Your task to perform on an android device: Search for Italian restaurants on Maps Image 0: 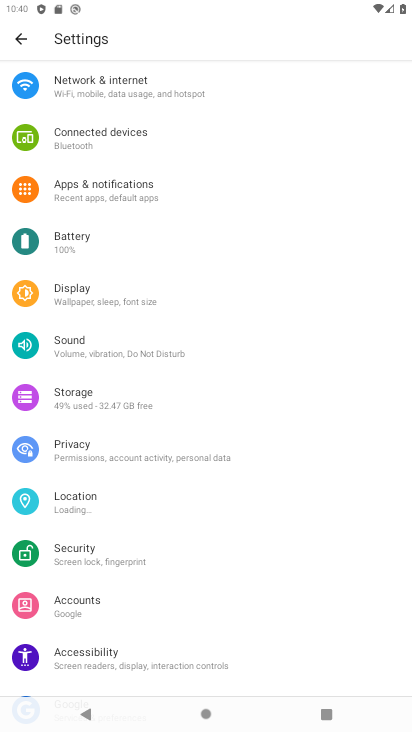
Step 0: press home button
Your task to perform on an android device: Search for Italian restaurants on Maps Image 1: 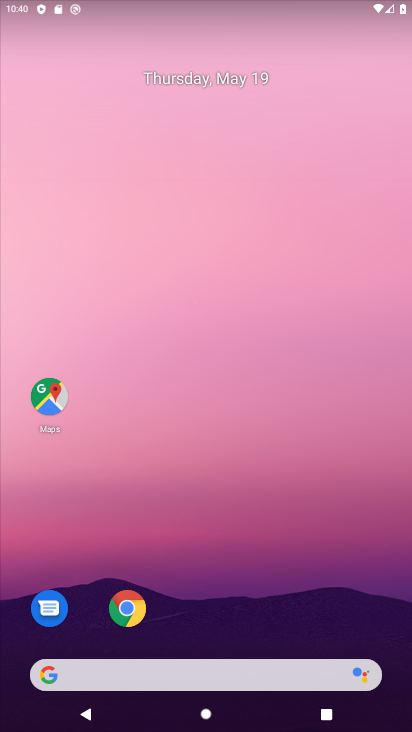
Step 1: click (54, 397)
Your task to perform on an android device: Search for Italian restaurants on Maps Image 2: 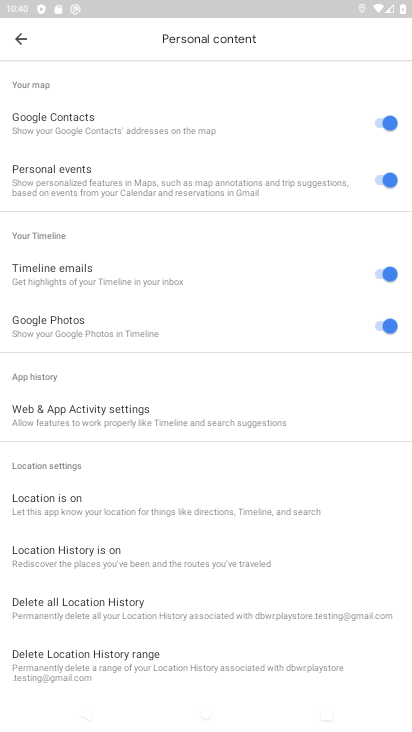
Step 2: press home button
Your task to perform on an android device: Search for Italian restaurants on Maps Image 3: 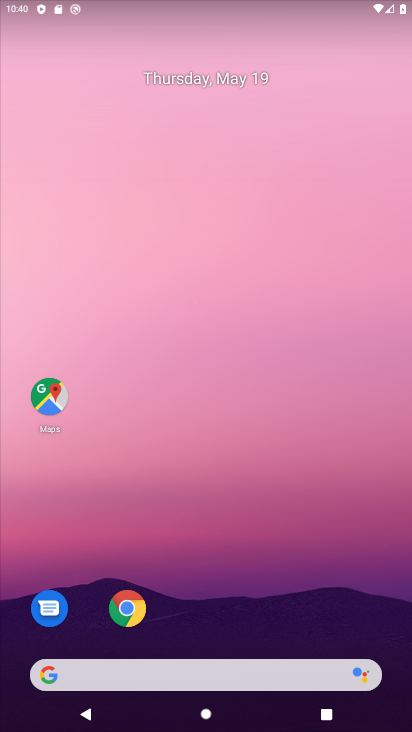
Step 3: click (123, 604)
Your task to perform on an android device: Search for Italian restaurants on Maps Image 4: 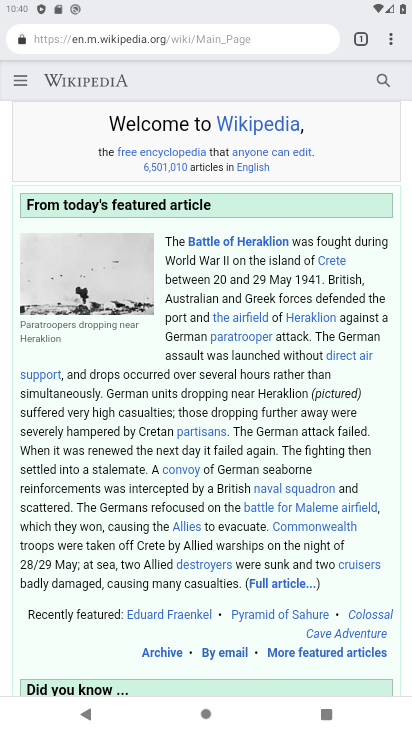
Step 4: press home button
Your task to perform on an android device: Search for Italian restaurants on Maps Image 5: 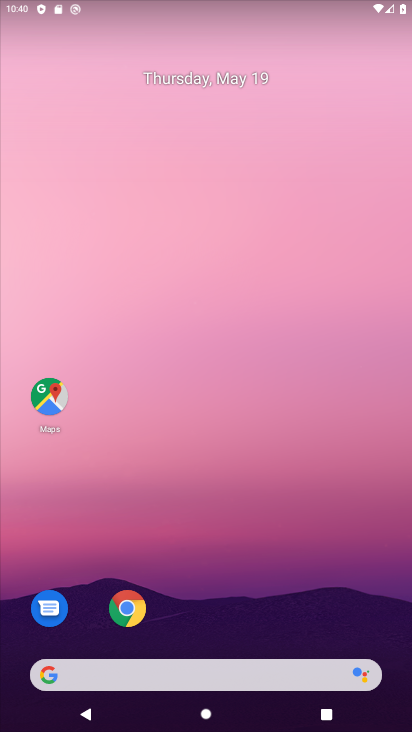
Step 5: click (44, 392)
Your task to perform on an android device: Search for Italian restaurants on Maps Image 6: 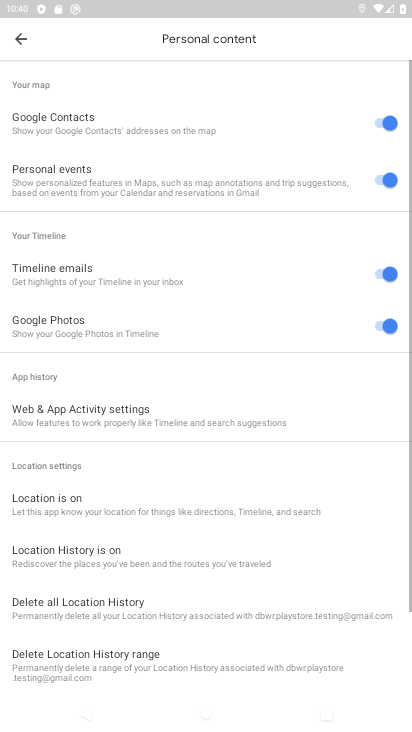
Step 6: click (16, 34)
Your task to perform on an android device: Search for Italian restaurants on Maps Image 7: 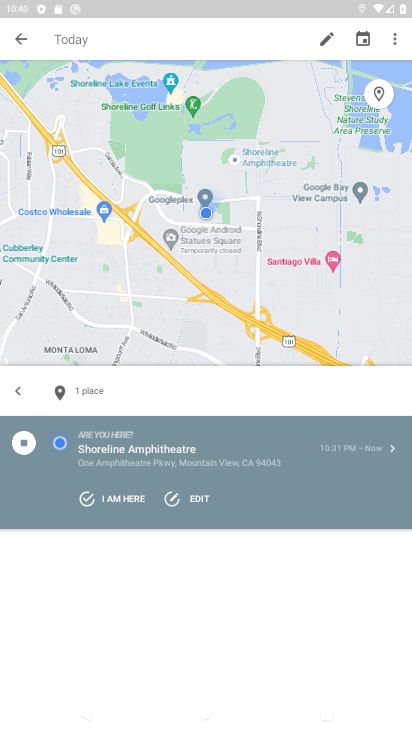
Step 7: click (92, 45)
Your task to perform on an android device: Search for Italian restaurants on Maps Image 8: 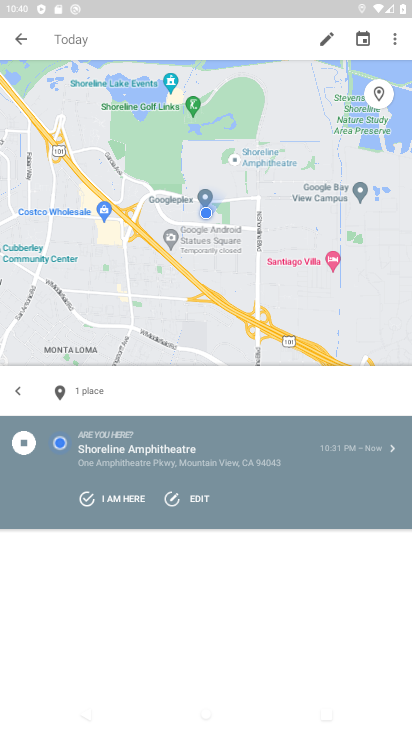
Step 8: click (16, 38)
Your task to perform on an android device: Search for Italian restaurants on Maps Image 9: 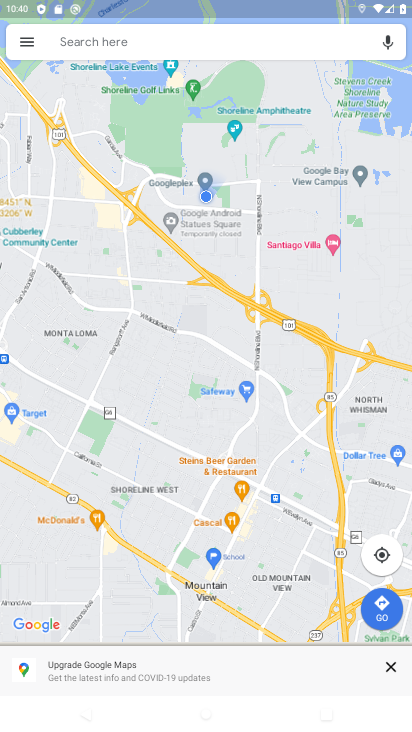
Step 9: click (78, 40)
Your task to perform on an android device: Search for Italian restaurants on Maps Image 10: 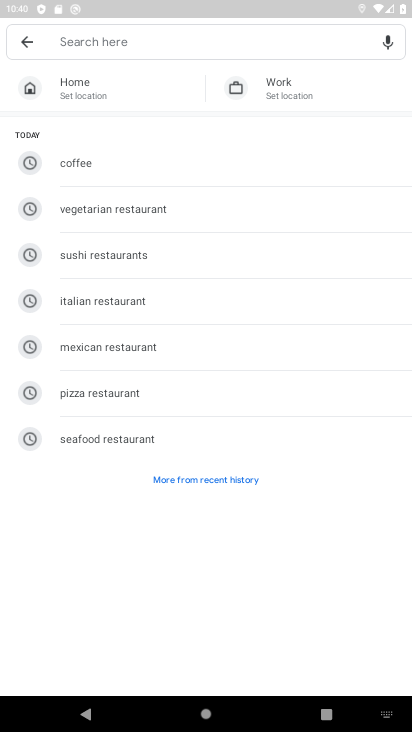
Step 10: type "talian restaurants "
Your task to perform on an android device: Search for Italian restaurants on Maps Image 11: 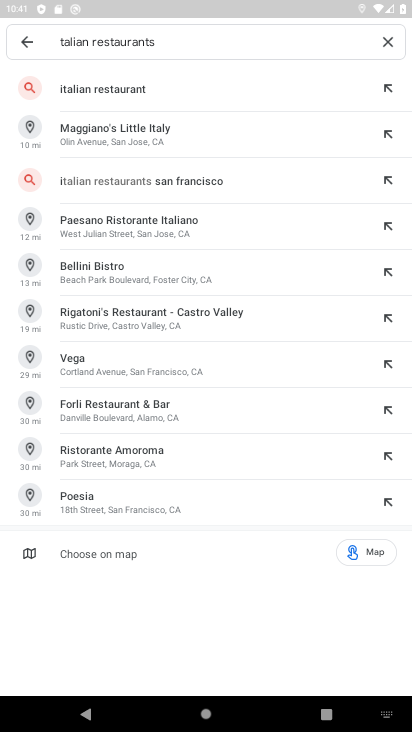
Step 11: click (136, 89)
Your task to perform on an android device: Search for Italian restaurants on Maps Image 12: 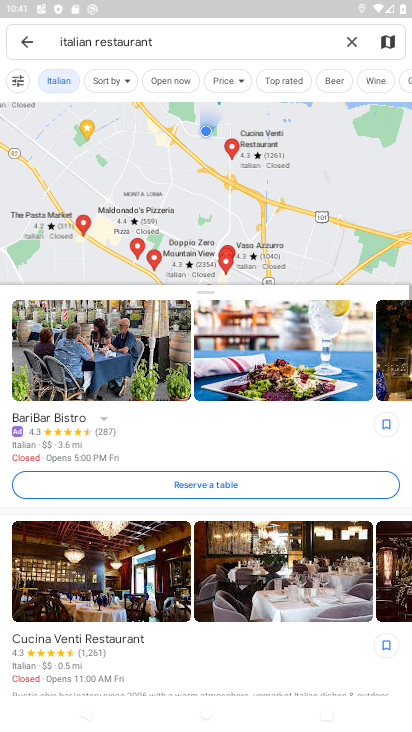
Step 12: task complete